Your task to perform on an android device: Go to notification settings Image 0: 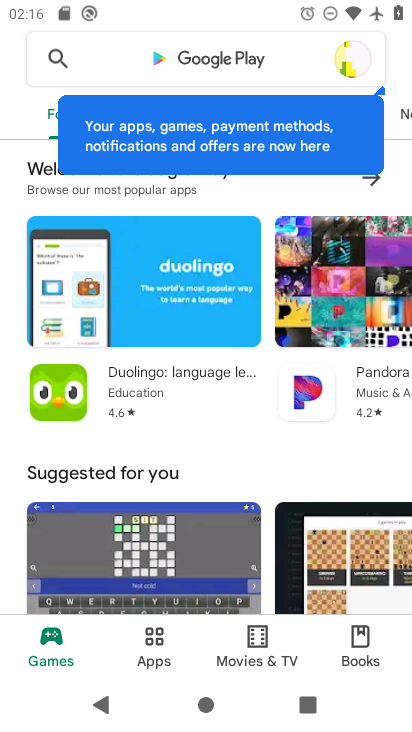
Step 0: press home button
Your task to perform on an android device: Go to notification settings Image 1: 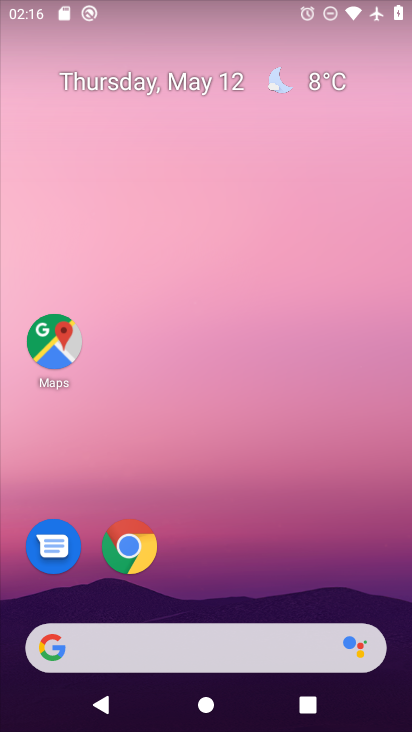
Step 1: drag from (180, 654) to (231, 186)
Your task to perform on an android device: Go to notification settings Image 2: 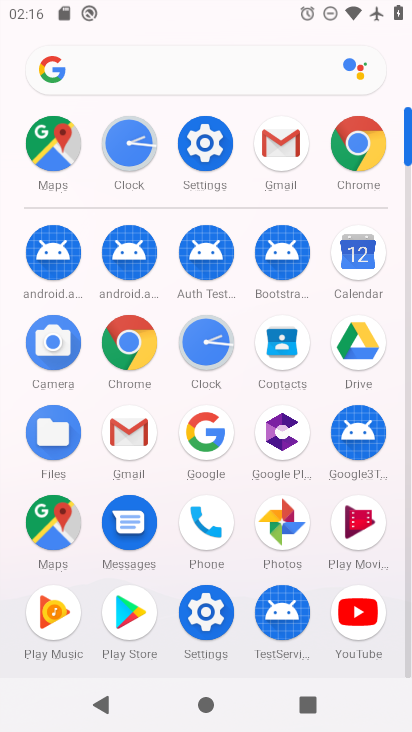
Step 2: click (208, 158)
Your task to perform on an android device: Go to notification settings Image 3: 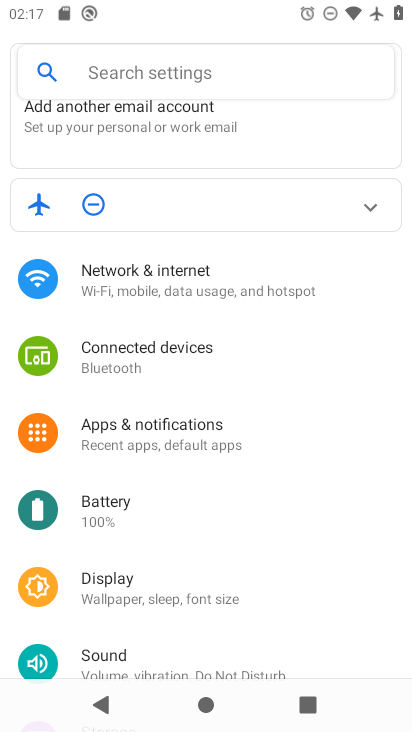
Step 3: click (179, 426)
Your task to perform on an android device: Go to notification settings Image 4: 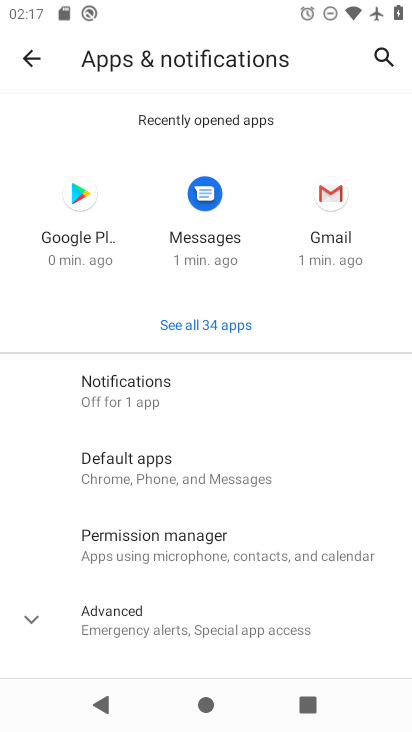
Step 4: click (118, 377)
Your task to perform on an android device: Go to notification settings Image 5: 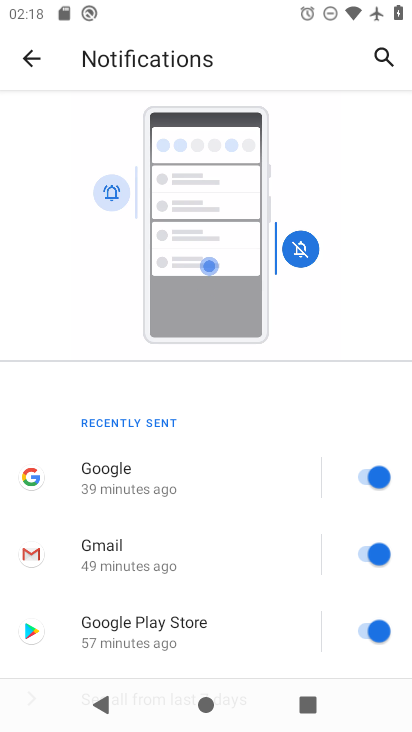
Step 5: task complete